Your task to perform on an android device: Open settings Image 0: 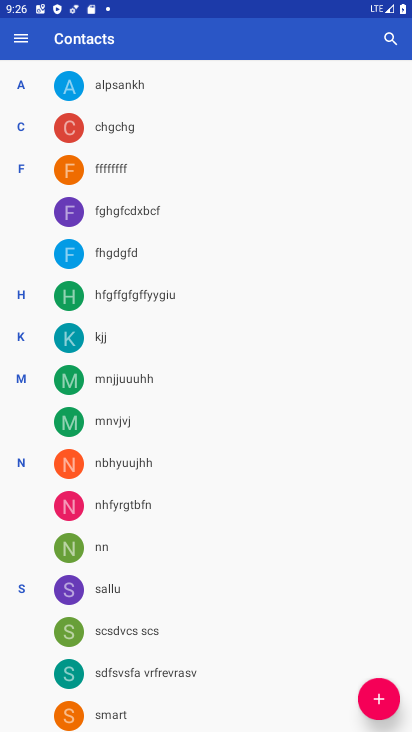
Step 0: press home button
Your task to perform on an android device: Open settings Image 1: 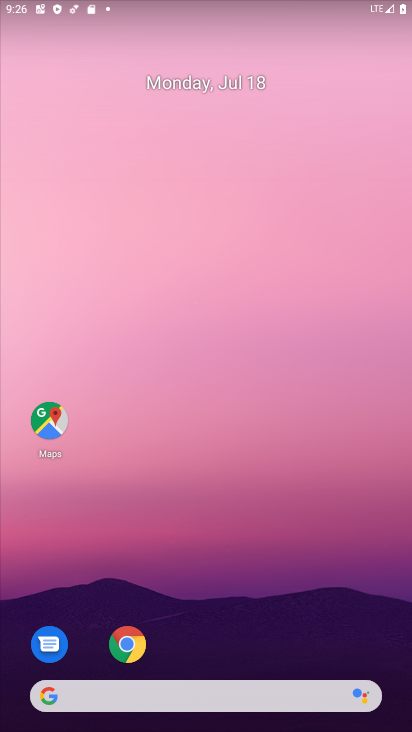
Step 1: drag from (240, 679) to (183, 0)
Your task to perform on an android device: Open settings Image 2: 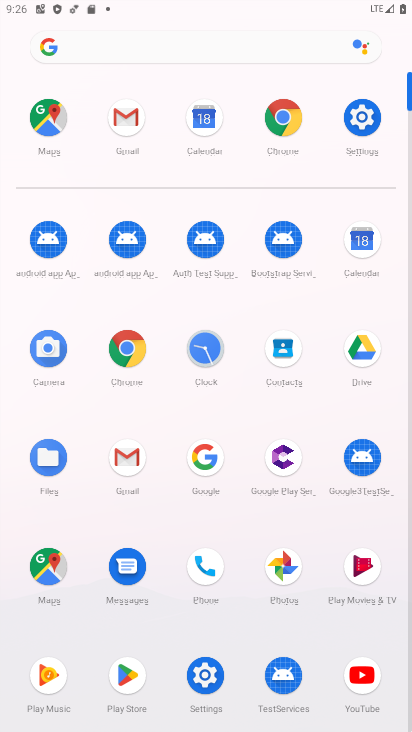
Step 2: click (350, 121)
Your task to perform on an android device: Open settings Image 3: 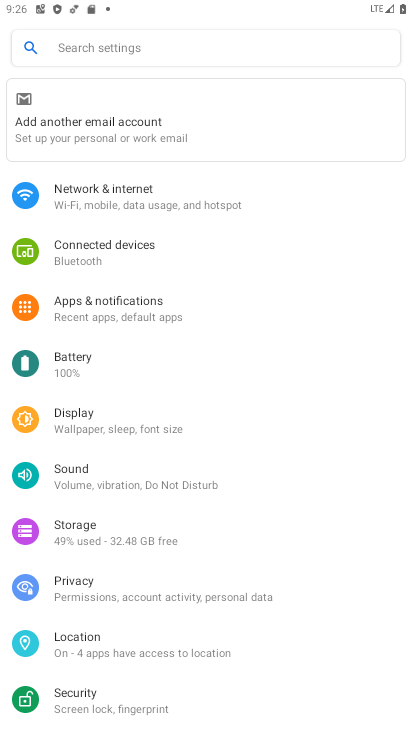
Step 3: task complete